Your task to perform on an android device: When is my next meeting? Image 0: 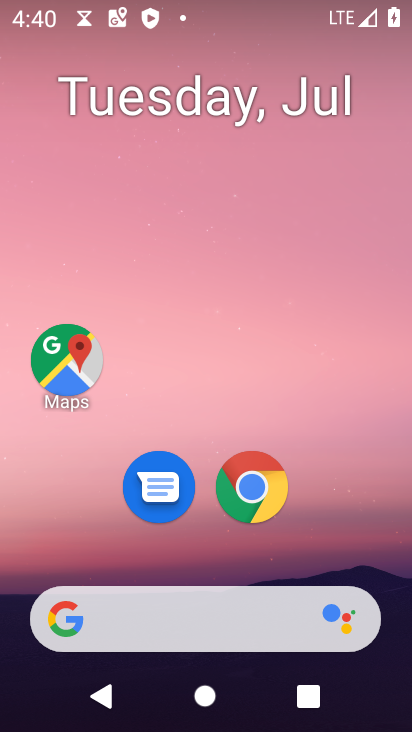
Step 0: drag from (194, 564) to (246, 23)
Your task to perform on an android device: When is my next meeting? Image 1: 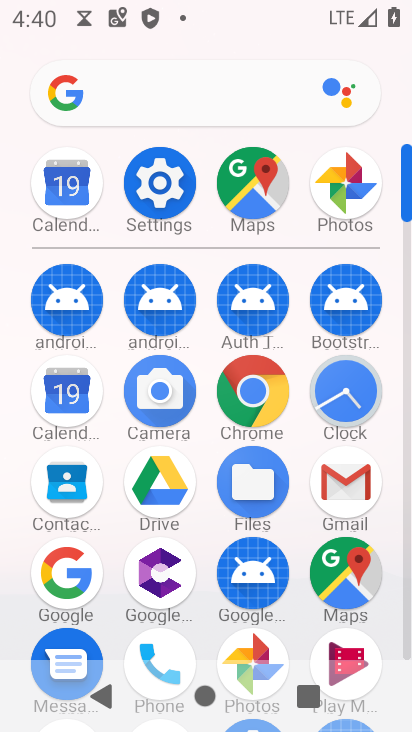
Step 1: click (71, 391)
Your task to perform on an android device: When is my next meeting? Image 2: 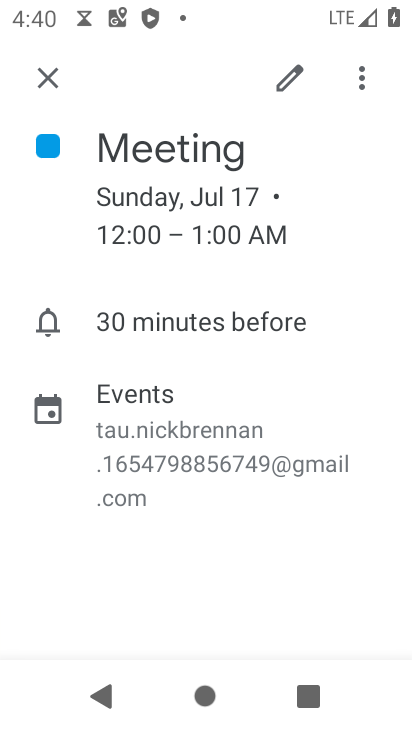
Step 2: click (43, 75)
Your task to perform on an android device: When is my next meeting? Image 3: 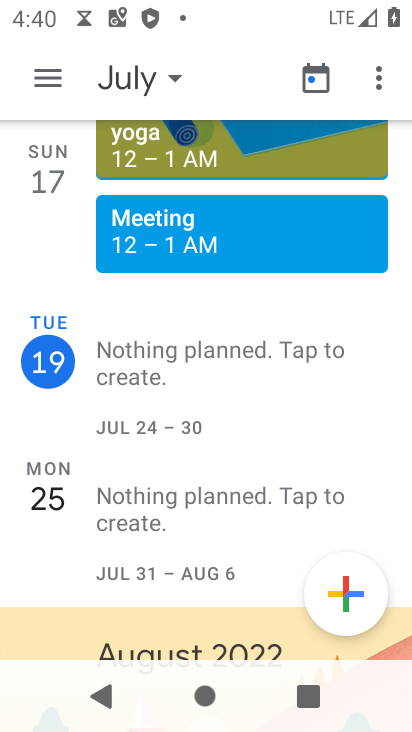
Step 3: task complete